Your task to perform on an android device: View the shopping cart on walmart.com. Search for alienware aurora on walmart.com, select the first entry, and add it to the cart. Image 0: 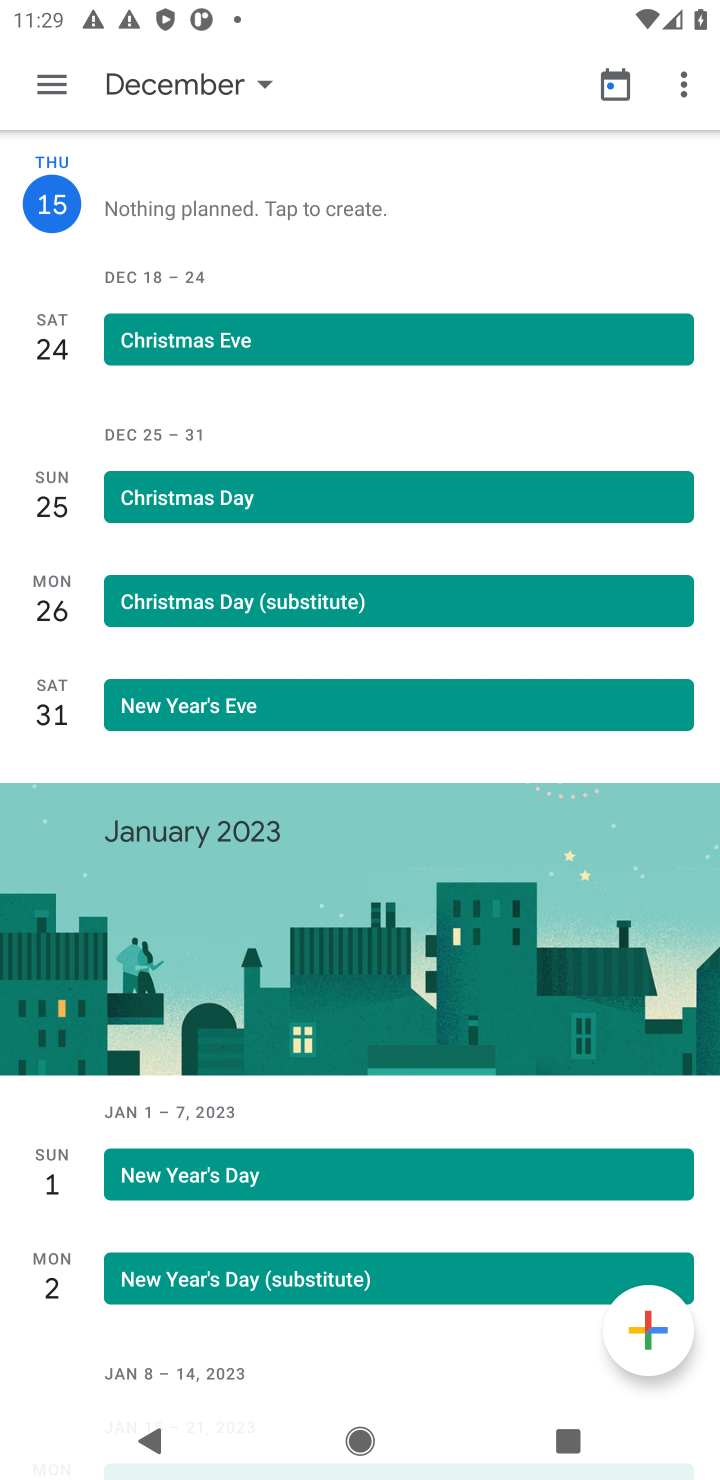
Step 0: press home button
Your task to perform on an android device: View the shopping cart on walmart.com. Search for alienware aurora on walmart.com, select the first entry, and add it to the cart. Image 1: 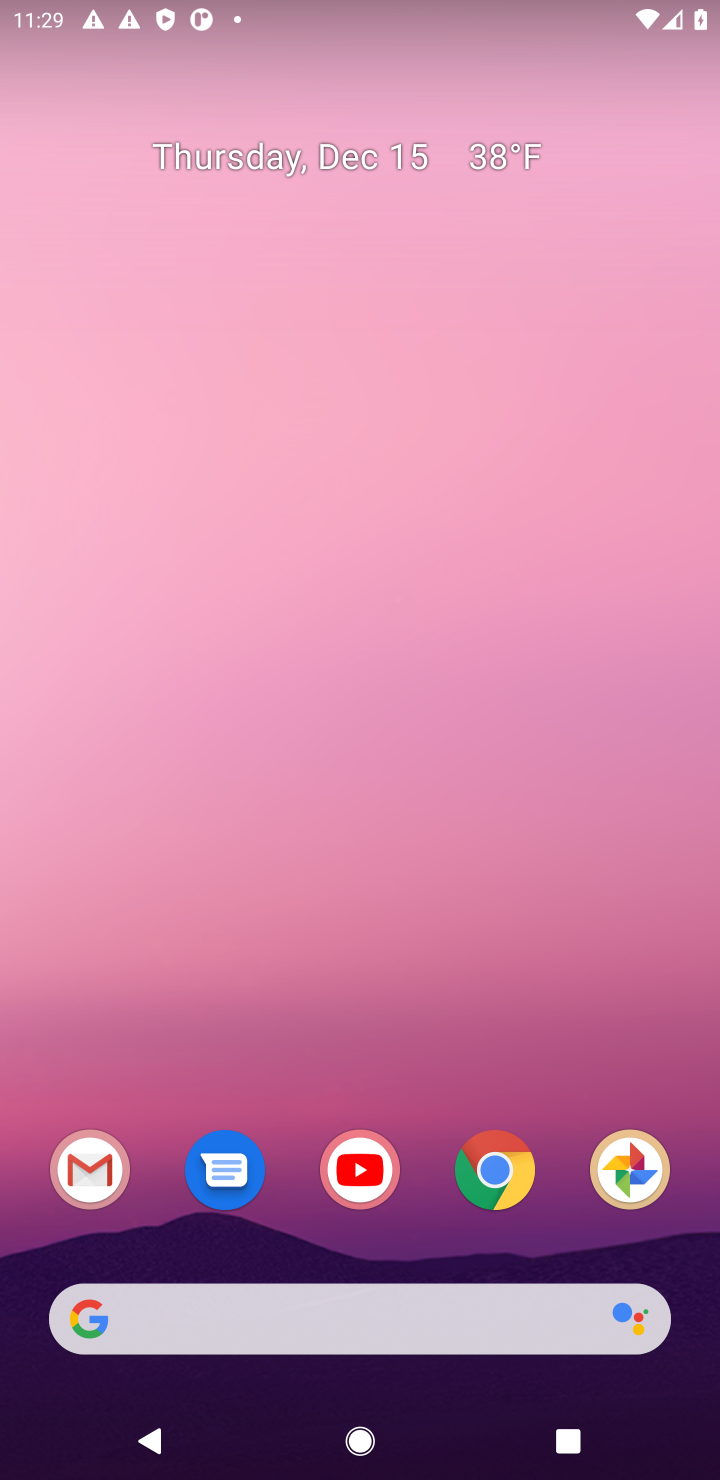
Step 1: click (513, 1177)
Your task to perform on an android device: View the shopping cart on walmart.com. Search for alienware aurora on walmart.com, select the first entry, and add it to the cart. Image 2: 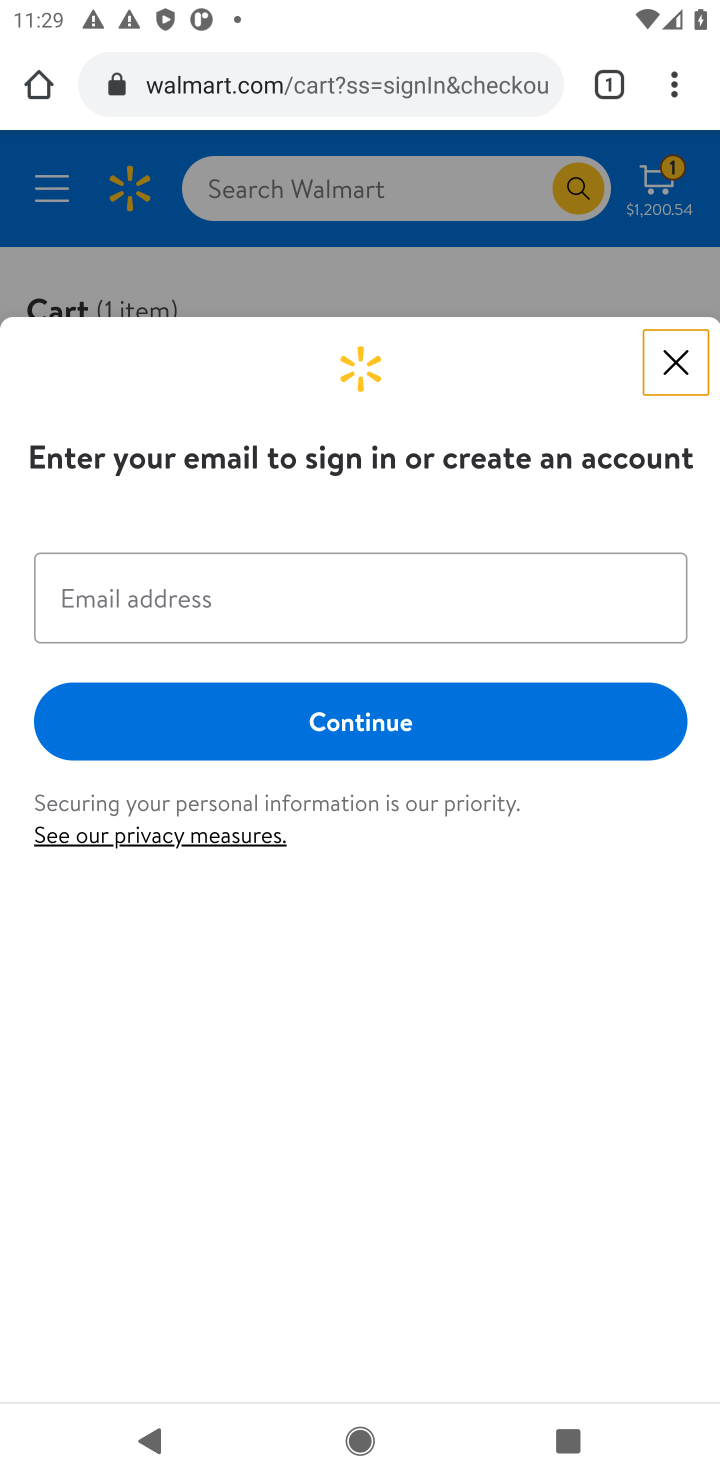
Step 2: click (675, 352)
Your task to perform on an android device: View the shopping cart on walmart.com. Search for alienware aurora on walmart.com, select the first entry, and add it to the cart. Image 3: 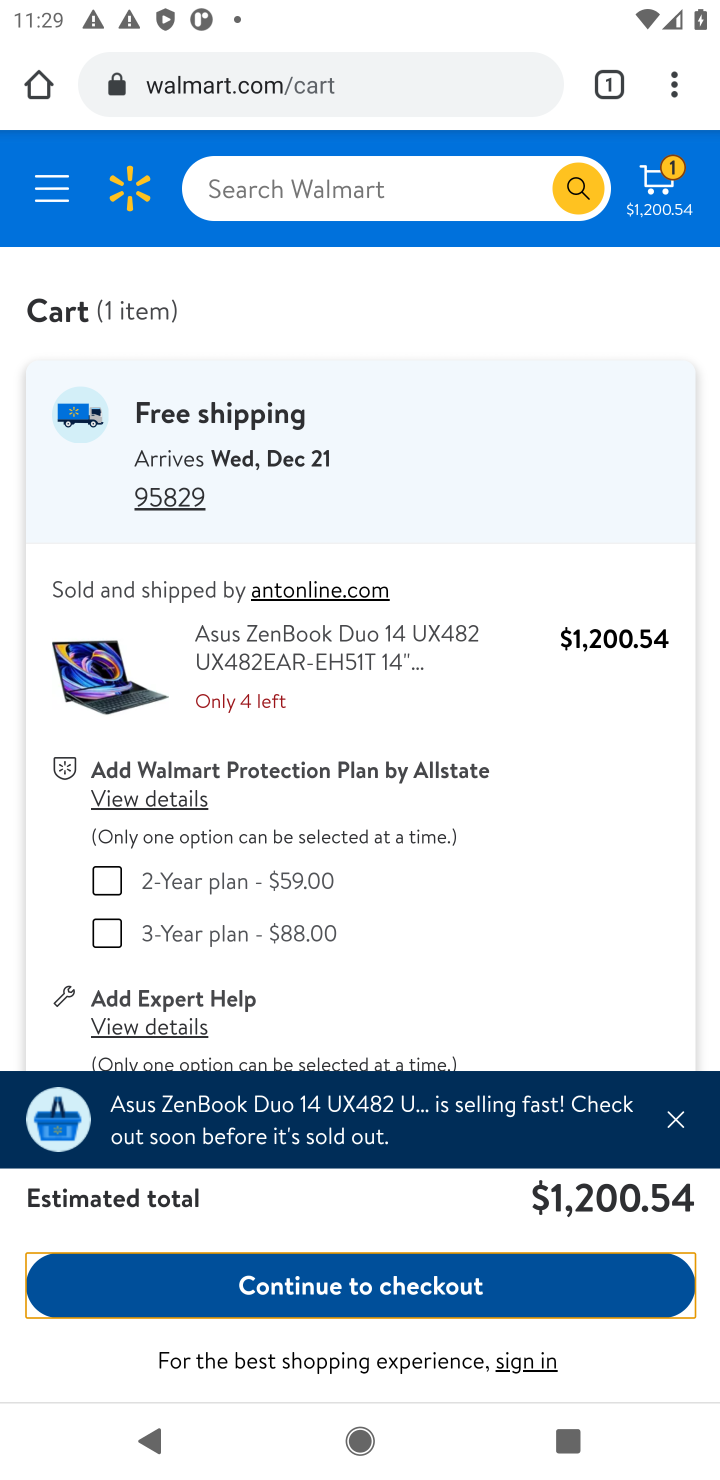
Step 3: drag from (367, 966) to (409, 708)
Your task to perform on an android device: View the shopping cart on walmart.com. Search for alienware aurora on walmart.com, select the first entry, and add it to the cart. Image 4: 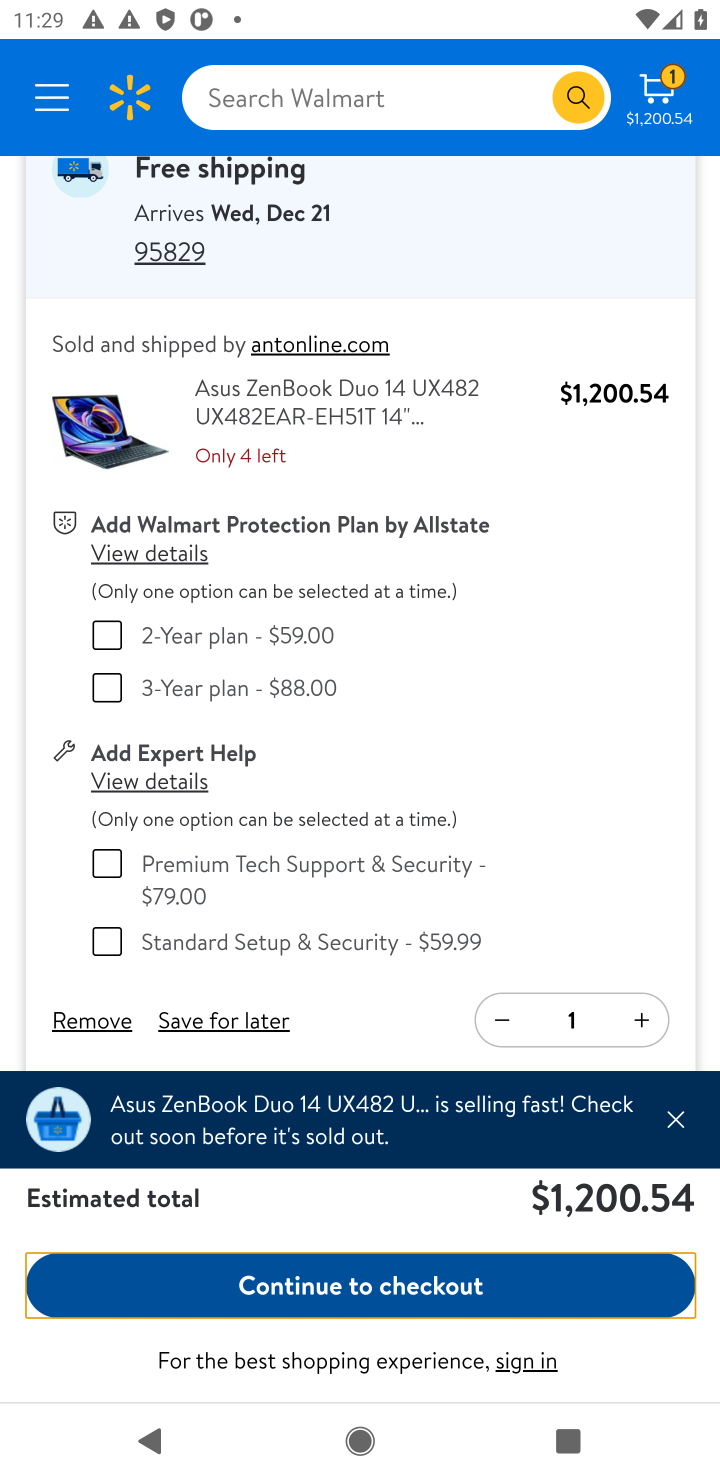
Step 4: click (299, 112)
Your task to perform on an android device: View the shopping cart on walmart.com. Search for alienware aurora on walmart.com, select the first entry, and add it to the cart. Image 5: 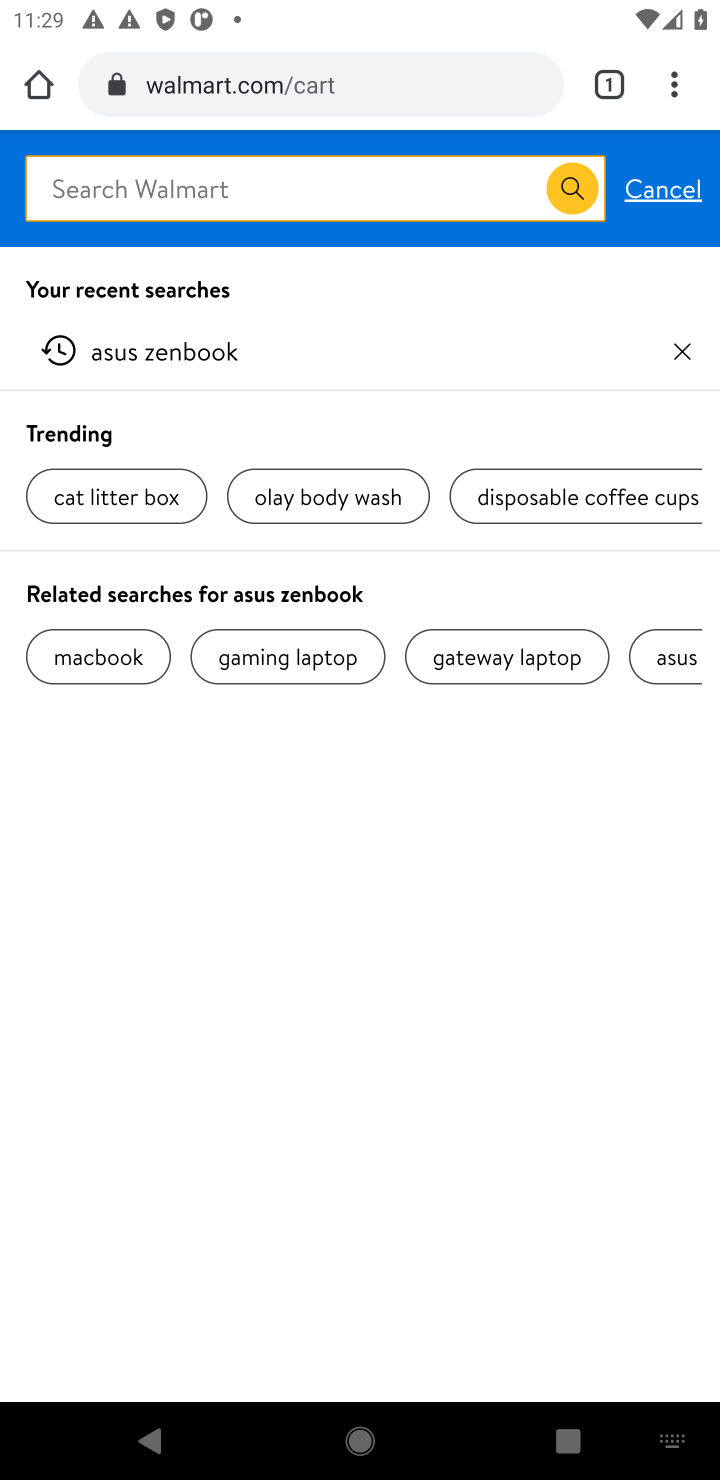
Step 5: type "alienware aurora"
Your task to perform on an android device: View the shopping cart on walmart.com. Search for alienware aurora on walmart.com, select the first entry, and add it to the cart. Image 6: 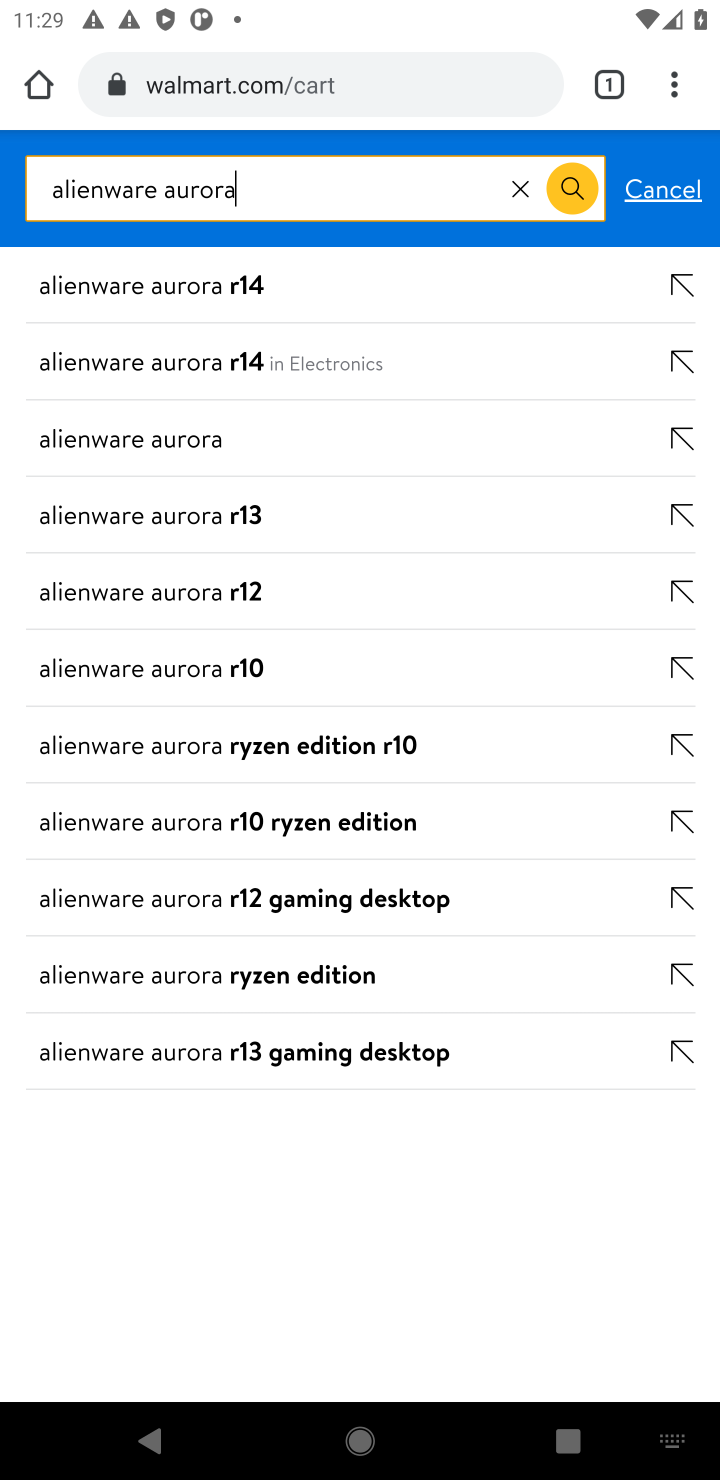
Step 6: click (140, 452)
Your task to perform on an android device: View the shopping cart on walmart.com. Search for alienware aurora on walmart.com, select the first entry, and add it to the cart. Image 7: 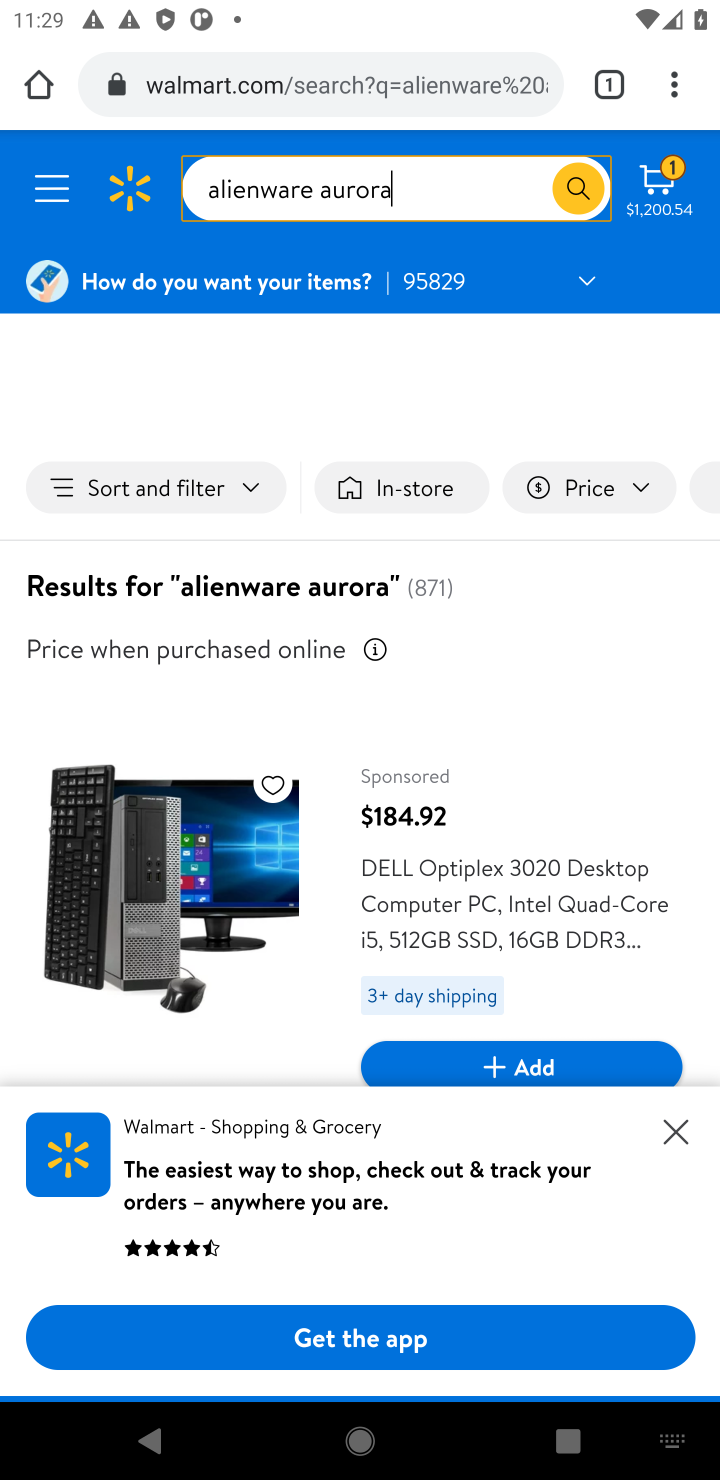
Step 7: task complete